Your task to perform on an android device: delete a single message in the gmail app Image 0: 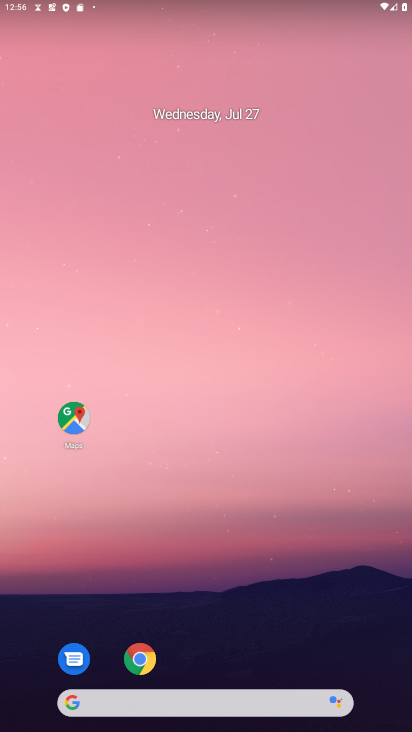
Step 0: drag from (192, 666) to (191, 110)
Your task to perform on an android device: delete a single message in the gmail app Image 1: 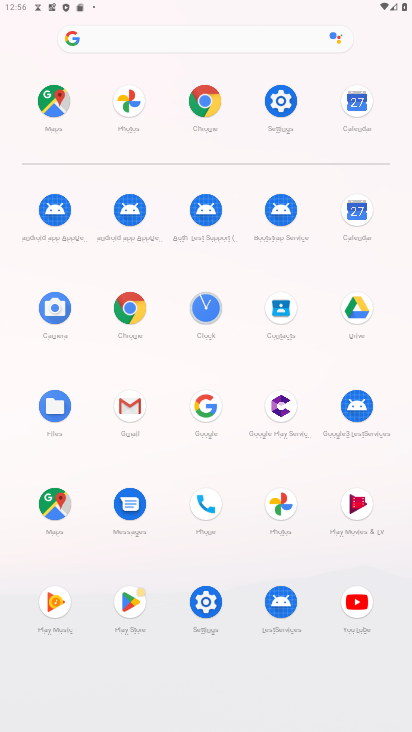
Step 1: click (130, 404)
Your task to perform on an android device: delete a single message in the gmail app Image 2: 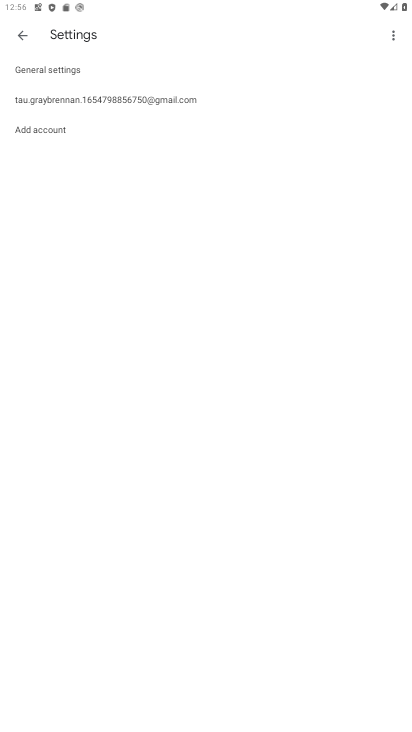
Step 2: click (17, 29)
Your task to perform on an android device: delete a single message in the gmail app Image 3: 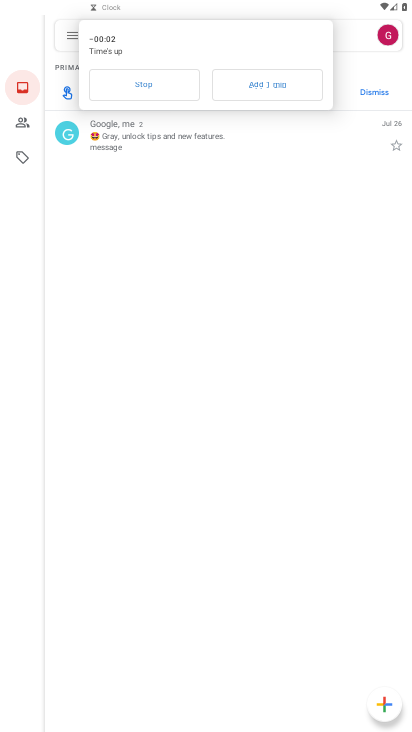
Step 3: click (152, 81)
Your task to perform on an android device: delete a single message in the gmail app Image 4: 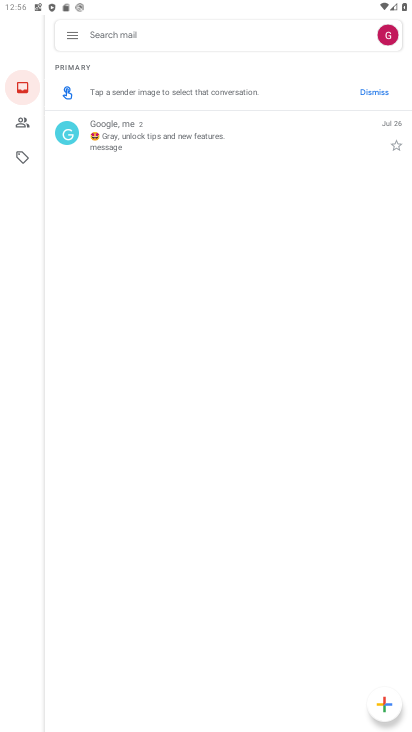
Step 4: click (63, 134)
Your task to perform on an android device: delete a single message in the gmail app Image 5: 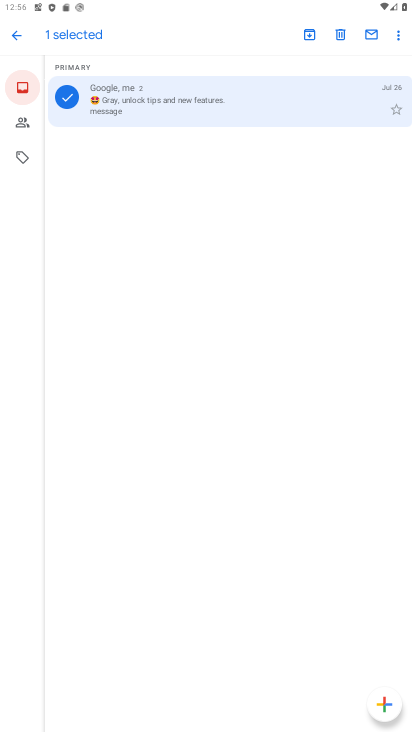
Step 5: click (395, 34)
Your task to perform on an android device: delete a single message in the gmail app Image 6: 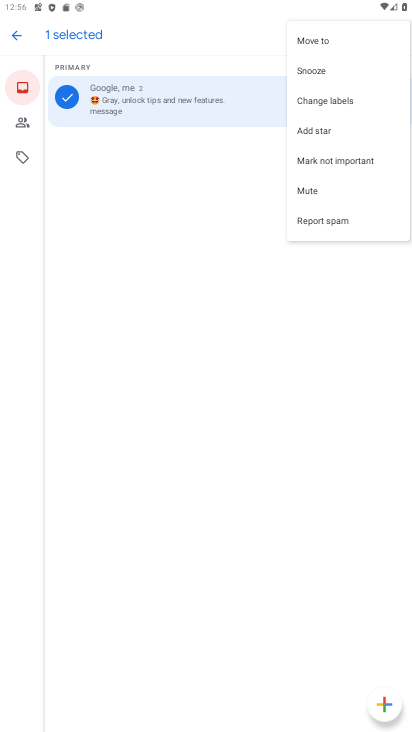
Step 6: click (192, 215)
Your task to perform on an android device: delete a single message in the gmail app Image 7: 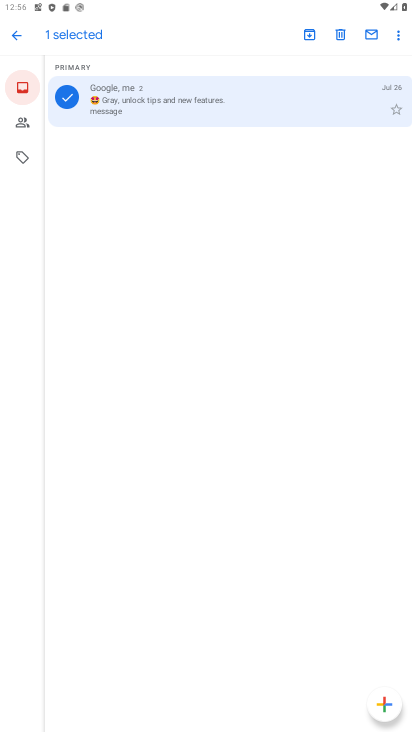
Step 7: click (339, 30)
Your task to perform on an android device: delete a single message in the gmail app Image 8: 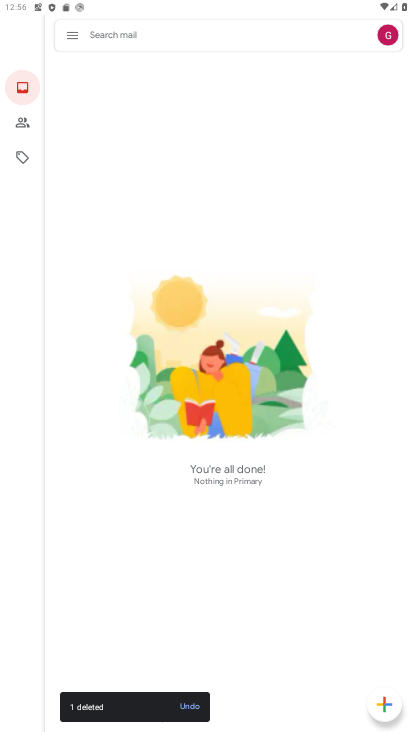
Step 8: task complete